Your task to perform on an android device: Toggle the flashlight Image 0: 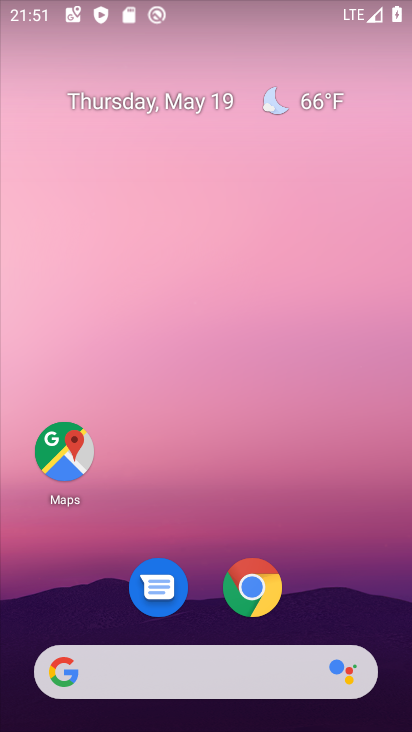
Step 0: click (273, 617)
Your task to perform on an android device: Toggle the flashlight Image 1: 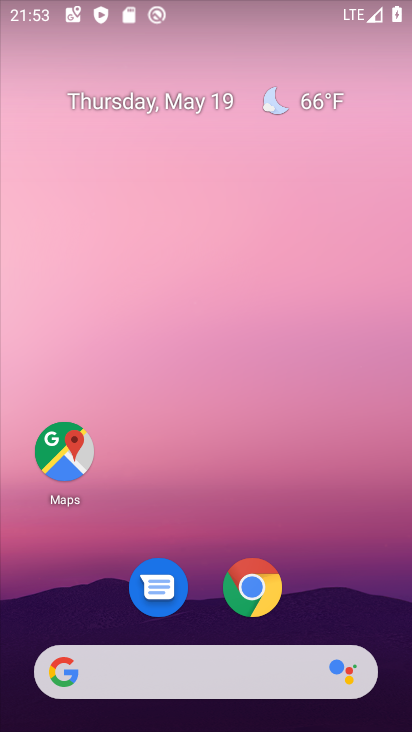
Step 1: press home button
Your task to perform on an android device: Toggle the flashlight Image 2: 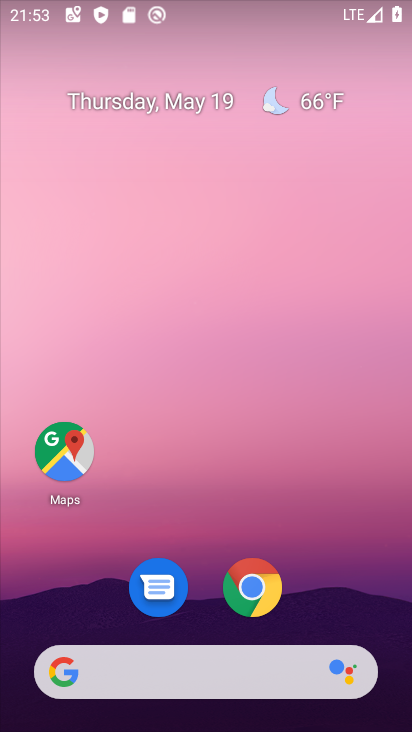
Step 2: drag from (199, 648) to (184, 97)
Your task to perform on an android device: Toggle the flashlight Image 3: 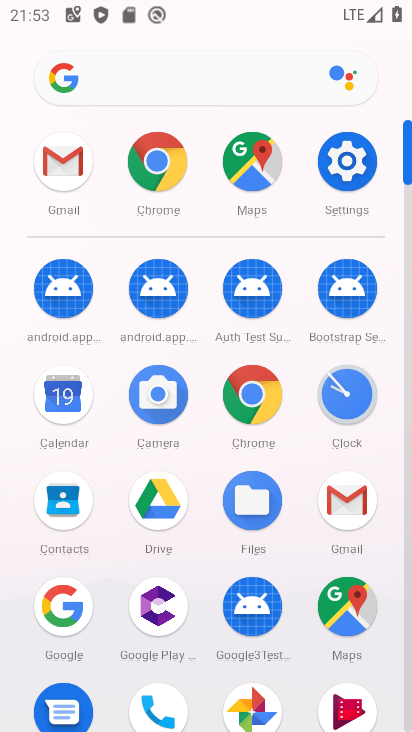
Step 3: click (369, 165)
Your task to perform on an android device: Toggle the flashlight Image 4: 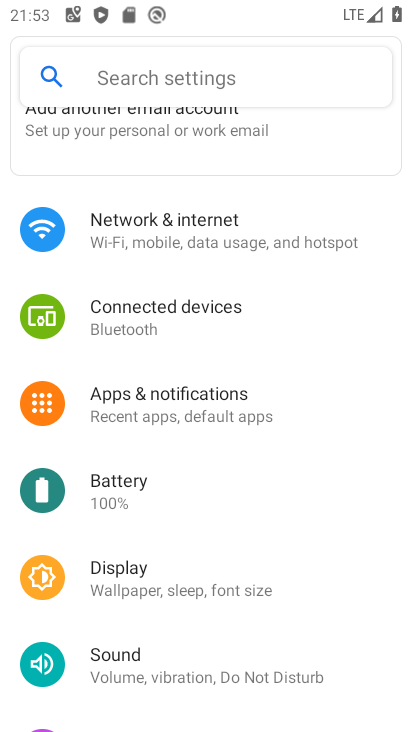
Step 4: click (219, 89)
Your task to perform on an android device: Toggle the flashlight Image 5: 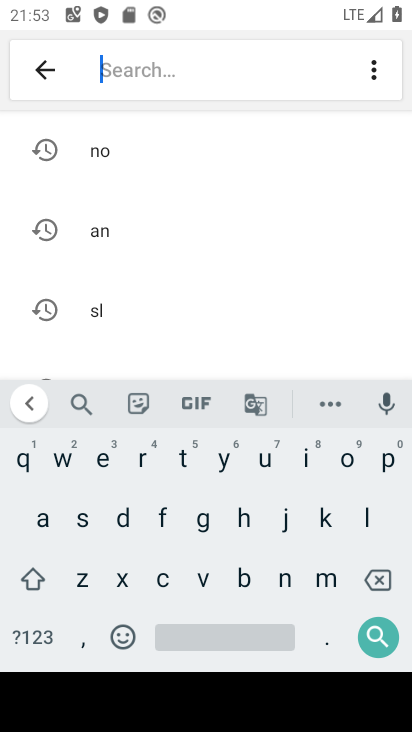
Step 5: click (165, 540)
Your task to perform on an android device: Toggle the flashlight Image 6: 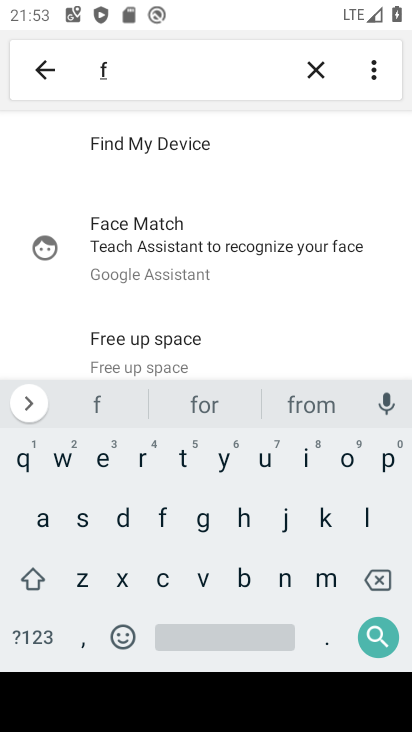
Step 6: click (367, 514)
Your task to perform on an android device: Toggle the flashlight Image 7: 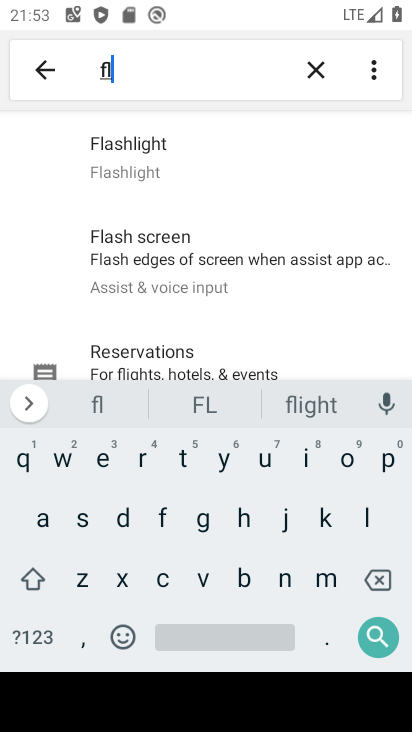
Step 7: click (186, 180)
Your task to perform on an android device: Toggle the flashlight Image 8: 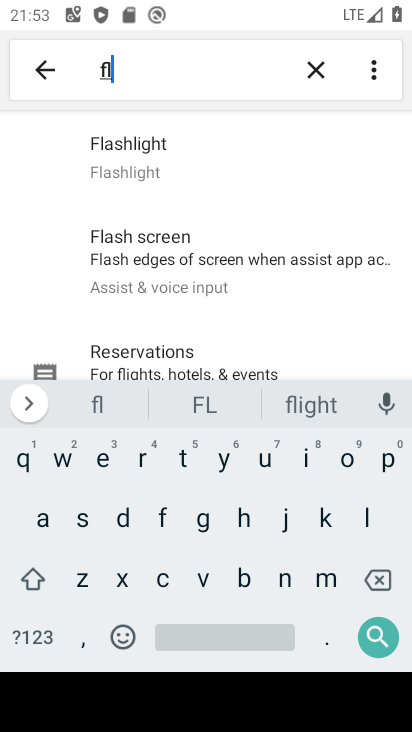
Step 8: task complete